Your task to perform on an android device: search for starred emails in the gmail app Image 0: 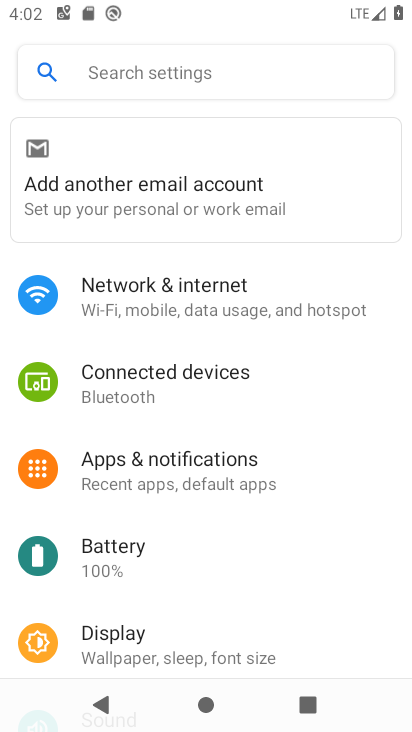
Step 0: press home button
Your task to perform on an android device: search for starred emails in the gmail app Image 1: 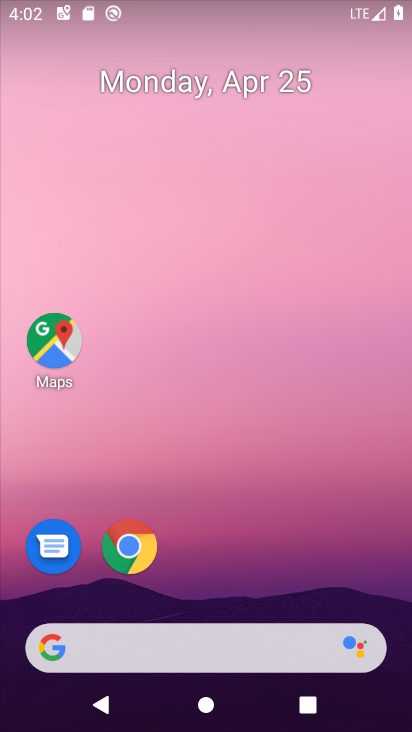
Step 1: drag from (311, 364) to (346, 18)
Your task to perform on an android device: search for starred emails in the gmail app Image 2: 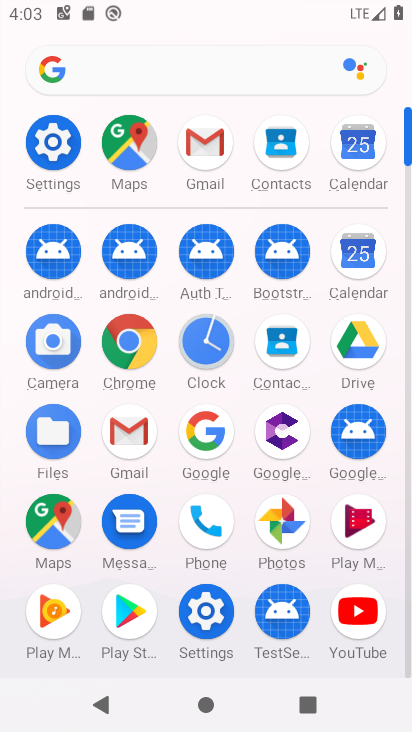
Step 2: click (127, 431)
Your task to perform on an android device: search for starred emails in the gmail app Image 3: 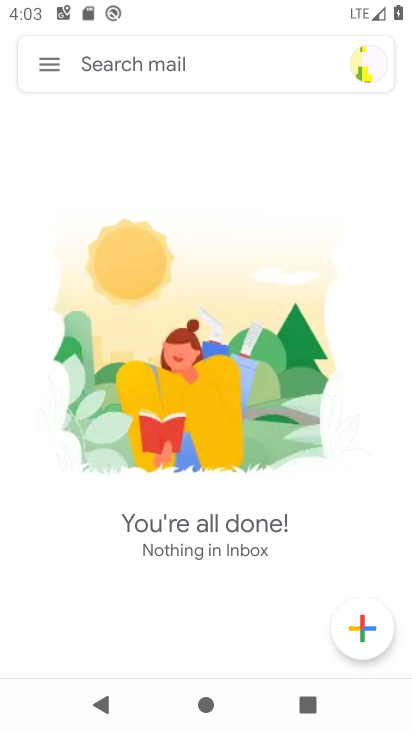
Step 3: click (43, 71)
Your task to perform on an android device: search for starred emails in the gmail app Image 4: 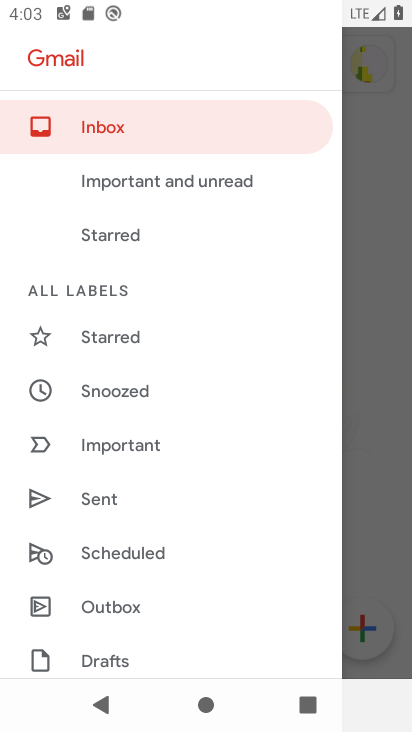
Step 4: click (94, 323)
Your task to perform on an android device: search for starred emails in the gmail app Image 5: 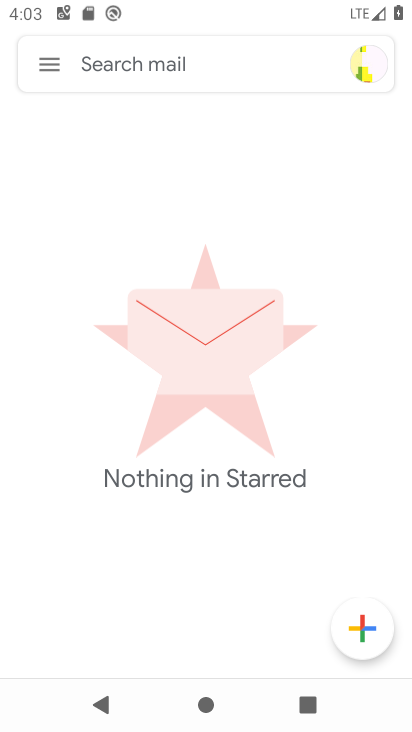
Step 5: task complete